Your task to perform on an android device: change the clock display to show seconds Image 0: 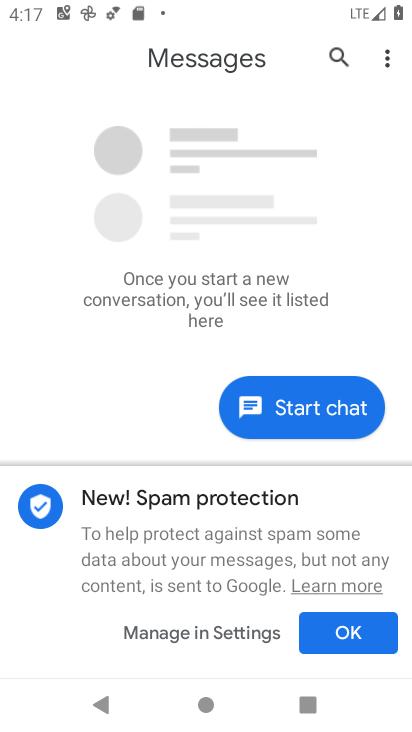
Step 0: press home button
Your task to perform on an android device: change the clock display to show seconds Image 1: 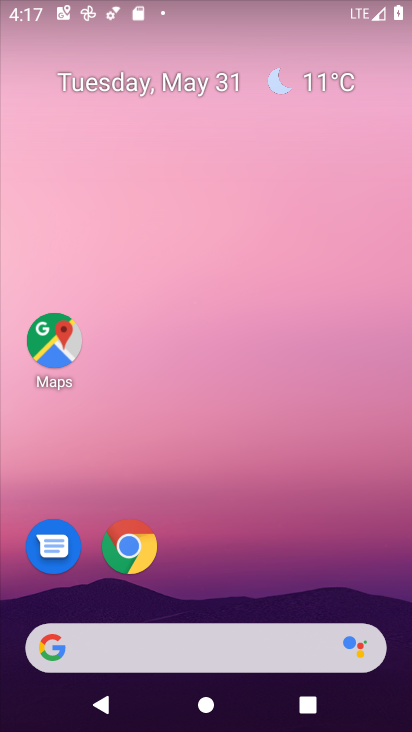
Step 1: drag from (278, 522) to (129, 3)
Your task to perform on an android device: change the clock display to show seconds Image 2: 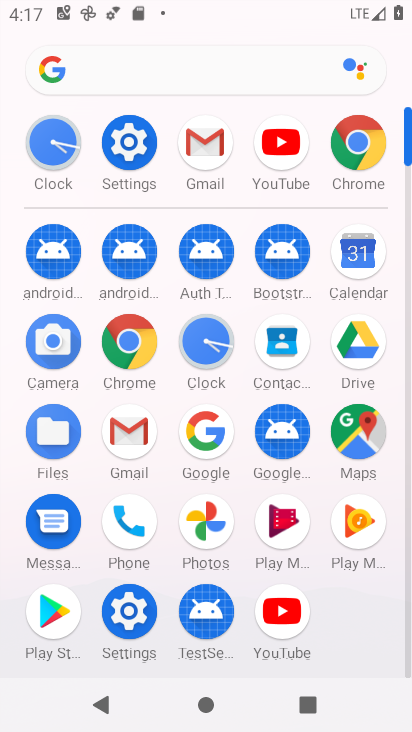
Step 2: click (205, 343)
Your task to perform on an android device: change the clock display to show seconds Image 3: 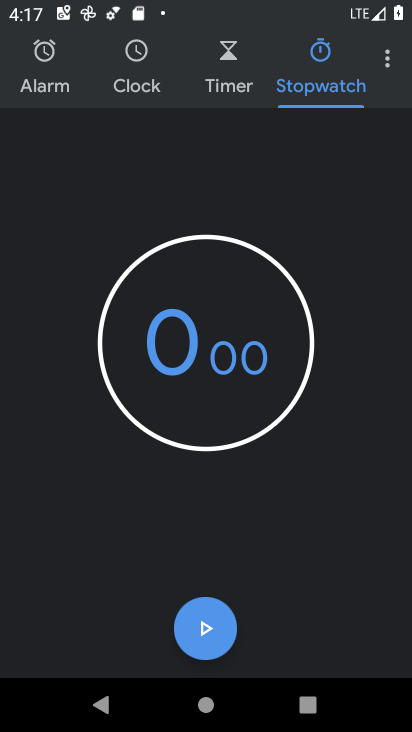
Step 3: click (380, 55)
Your task to perform on an android device: change the clock display to show seconds Image 4: 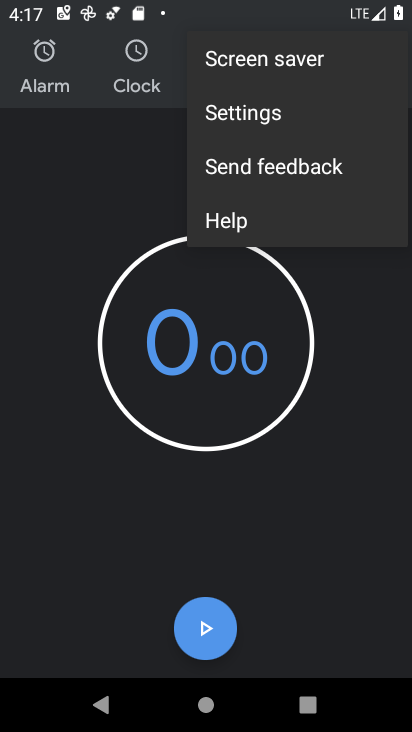
Step 4: click (258, 116)
Your task to perform on an android device: change the clock display to show seconds Image 5: 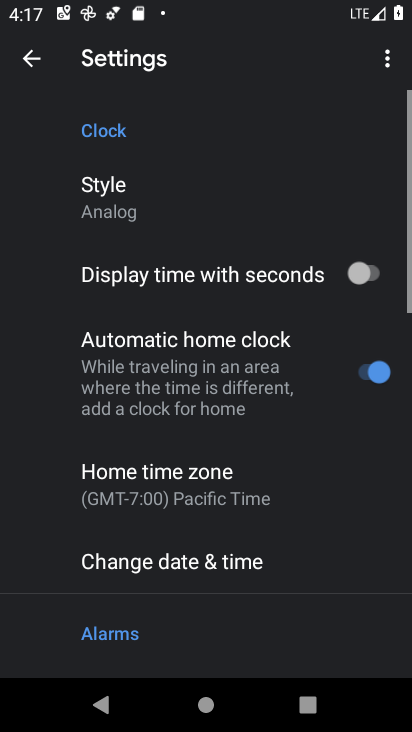
Step 5: click (360, 269)
Your task to perform on an android device: change the clock display to show seconds Image 6: 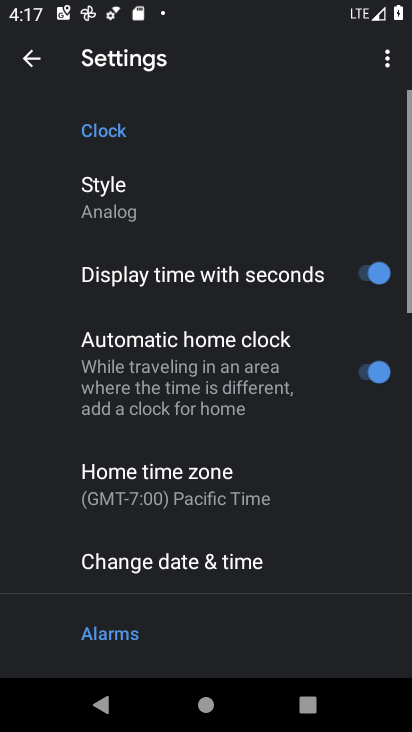
Step 6: task complete